Your task to perform on an android device: set default search engine in the chrome app Image 0: 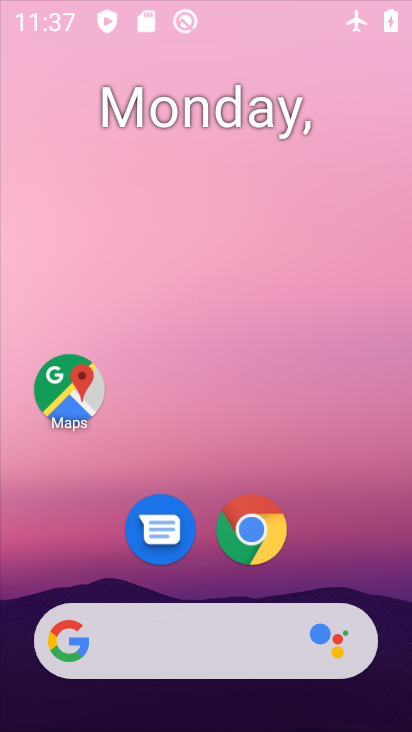
Step 0: drag from (205, 724) to (217, 34)
Your task to perform on an android device: set default search engine in the chrome app Image 1: 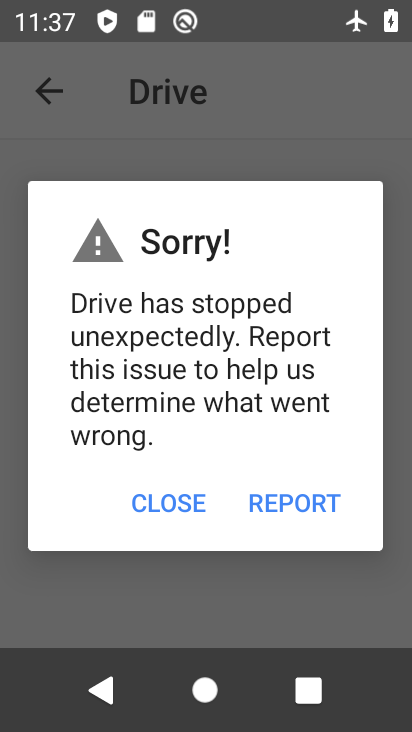
Step 1: press home button
Your task to perform on an android device: set default search engine in the chrome app Image 2: 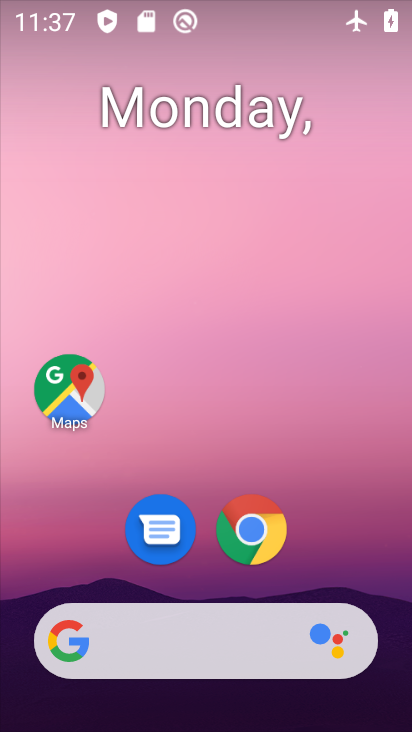
Step 2: click (265, 532)
Your task to perform on an android device: set default search engine in the chrome app Image 3: 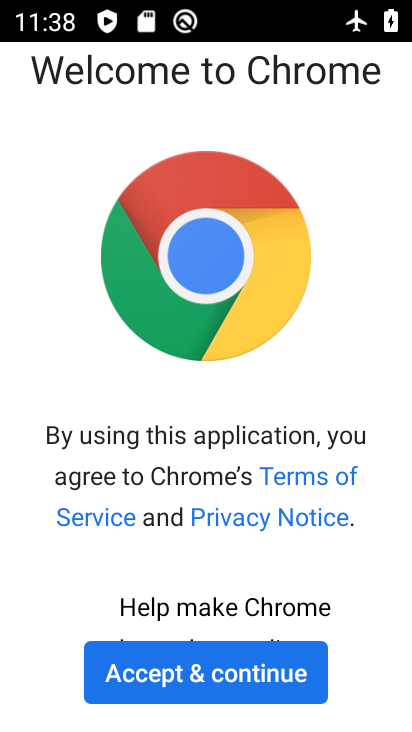
Step 3: click (254, 681)
Your task to perform on an android device: set default search engine in the chrome app Image 4: 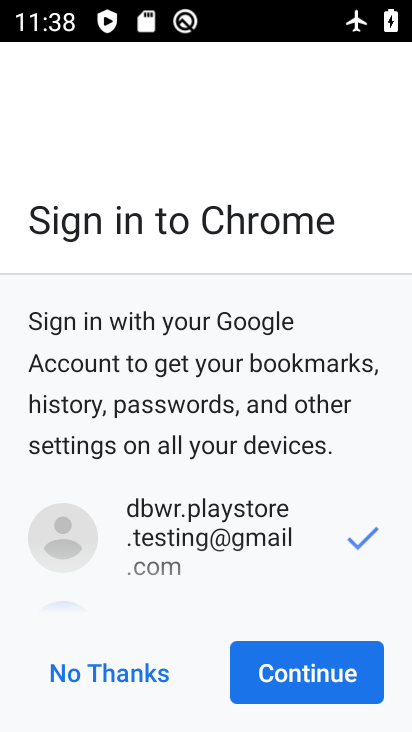
Step 4: click (269, 679)
Your task to perform on an android device: set default search engine in the chrome app Image 5: 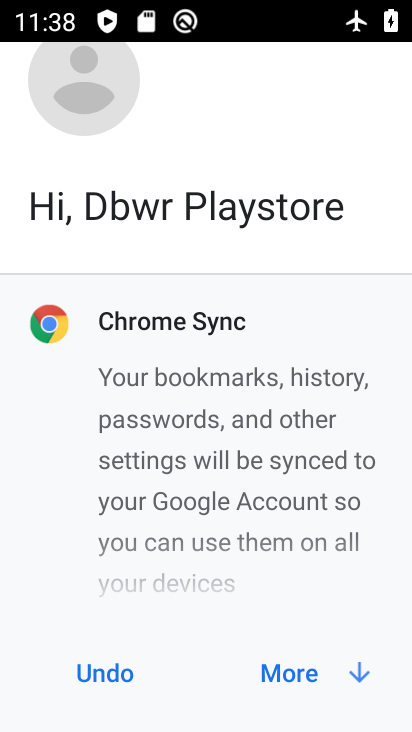
Step 5: click (281, 666)
Your task to perform on an android device: set default search engine in the chrome app Image 6: 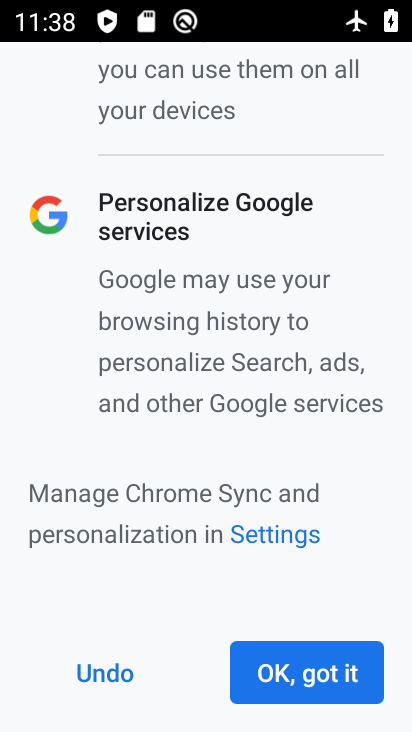
Step 6: click (281, 665)
Your task to perform on an android device: set default search engine in the chrome app Image 7: 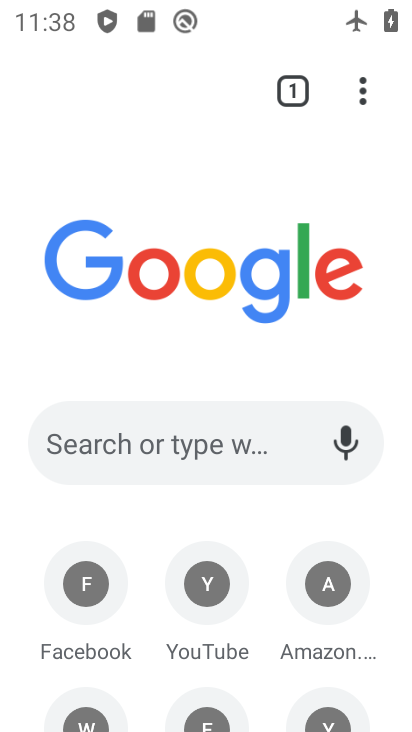
Step 7: click (363, 101)
Your task to perform on an android device: set default search engine in the chrome app Image 8: 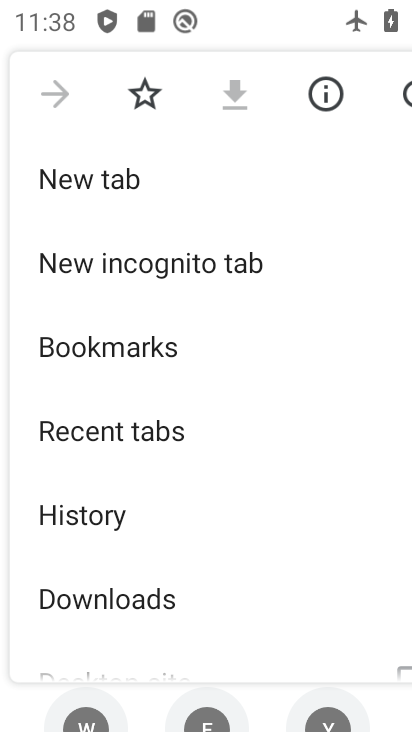
Step 8: drag from (130, 542) to (133, 136)
Your task to perform on an android device: set default search engine in the chrome app Image 9: 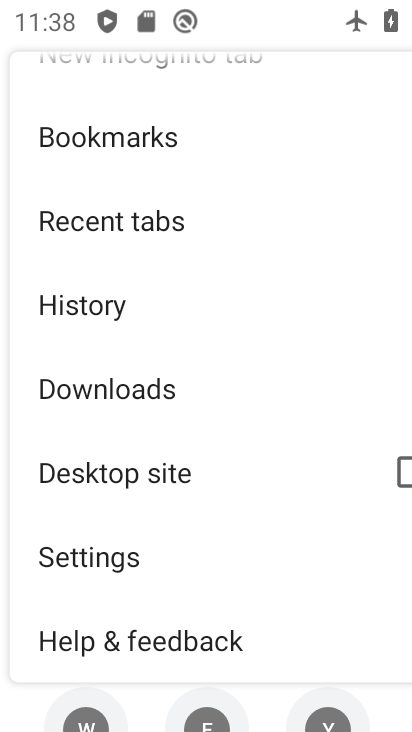
Step 9: click (95, 554)
Your task to perform on an android device: set default search engine in the chrome app Image 10: 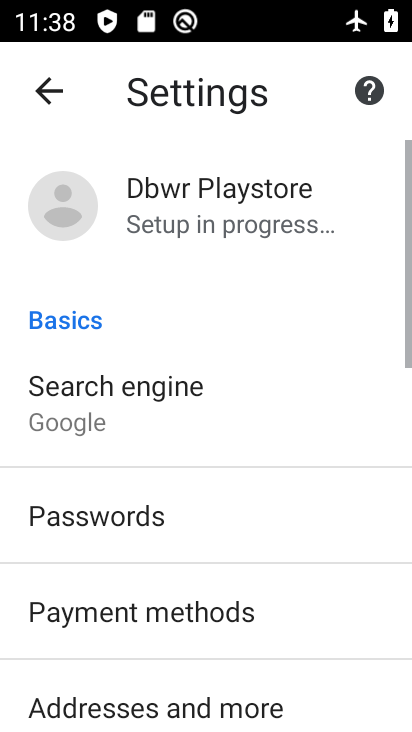
Step 10: click (100, 400)
Your task to perform on an android device: set default search engine in the chrome app Image 11: 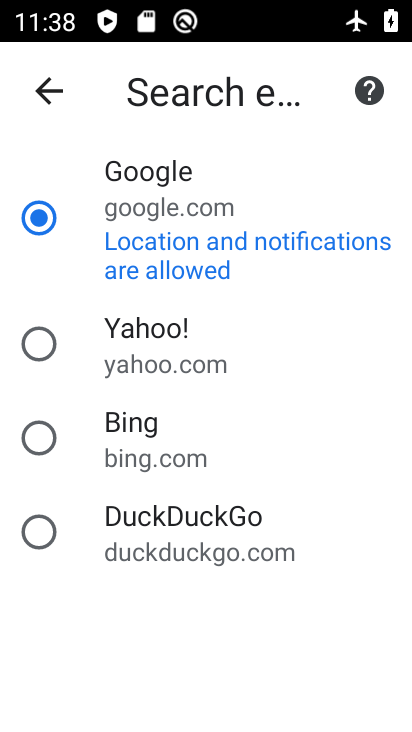
Step 11: click (42, 350)
Your task to perform on an android device: set default search engine in the chrome app Image 12: 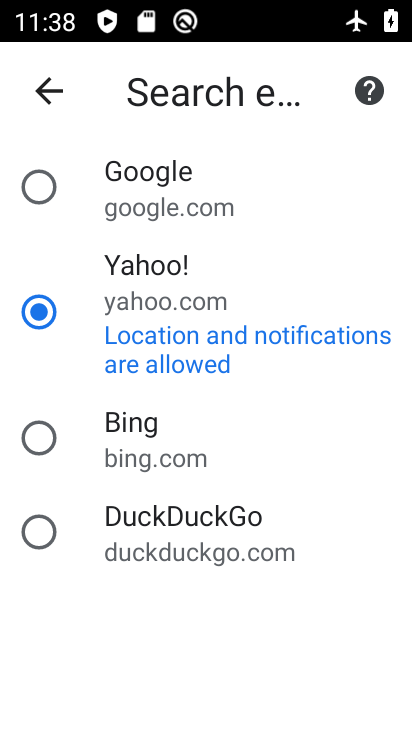
Step 12: task complete